Your task to perform on an android device: install app "Pluto TV - Live TV and Movies" Image 0: 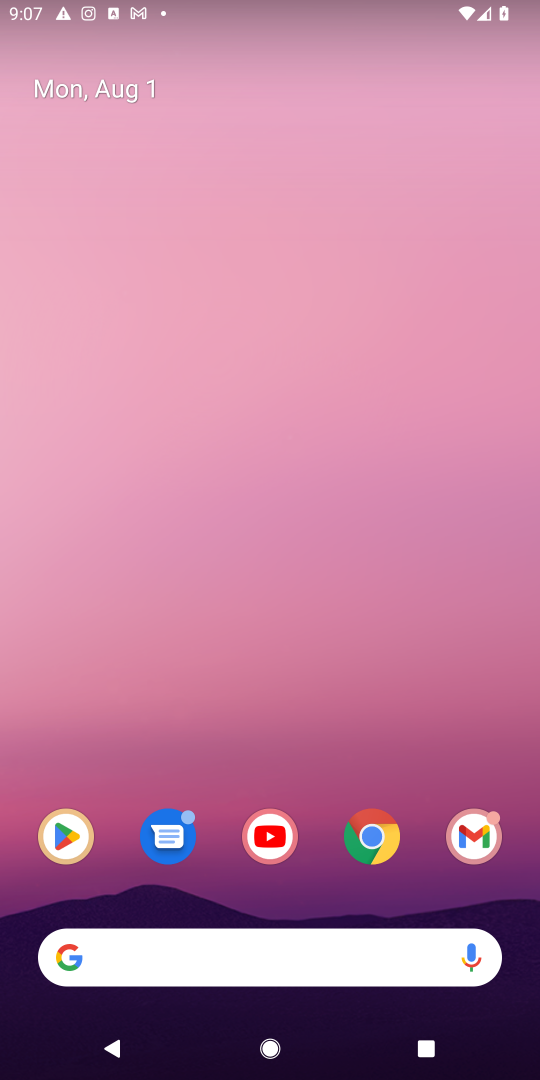
Step 0: press home button
Your task to perform on an android device: install app "Pluto TV - Live TV and Movies" Image 1: 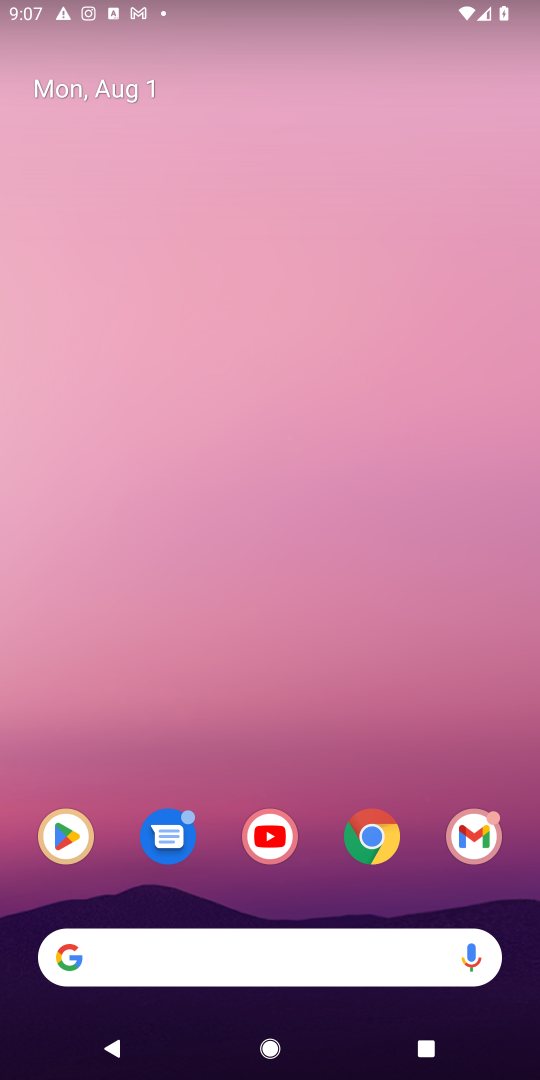
Step 1: click (64, 846)
Your task to perform on an android device: install app "Pluto TV - Live TV and Movies" Image 2: 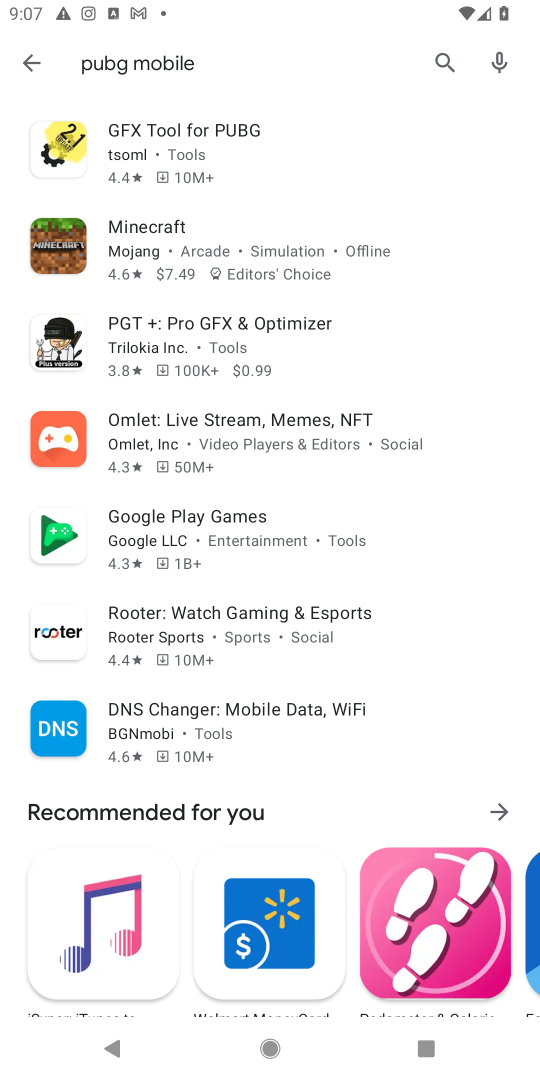
Step 2: click (439, 58)
Your task to perform on an android device: install app "Pluto TV - Live TV and Movies" Image 3: 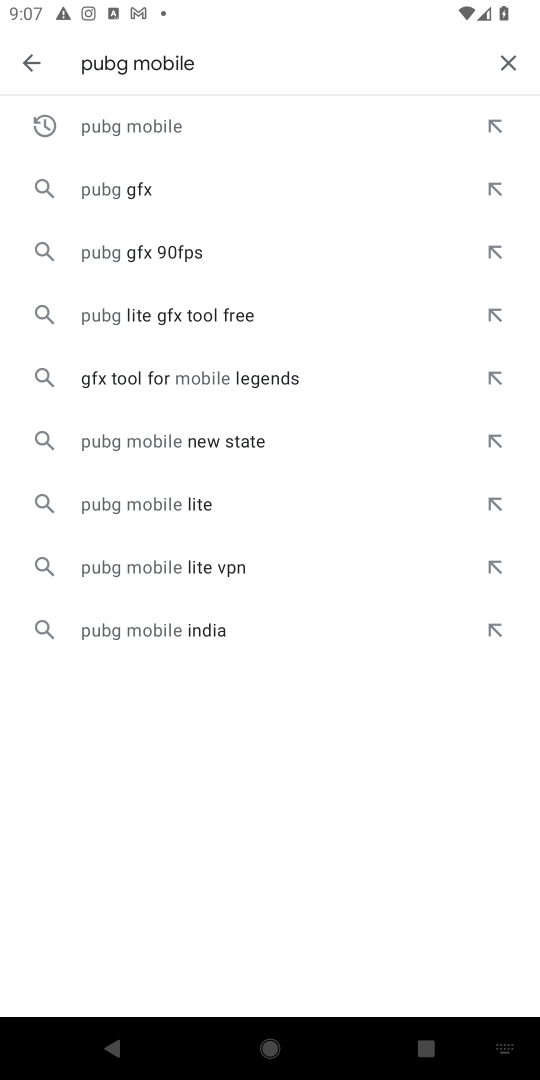
Step 3: click (508, 56)
Your task to perform on an android device: install app "Pluto TV - Live TV and Movies" Image 4: 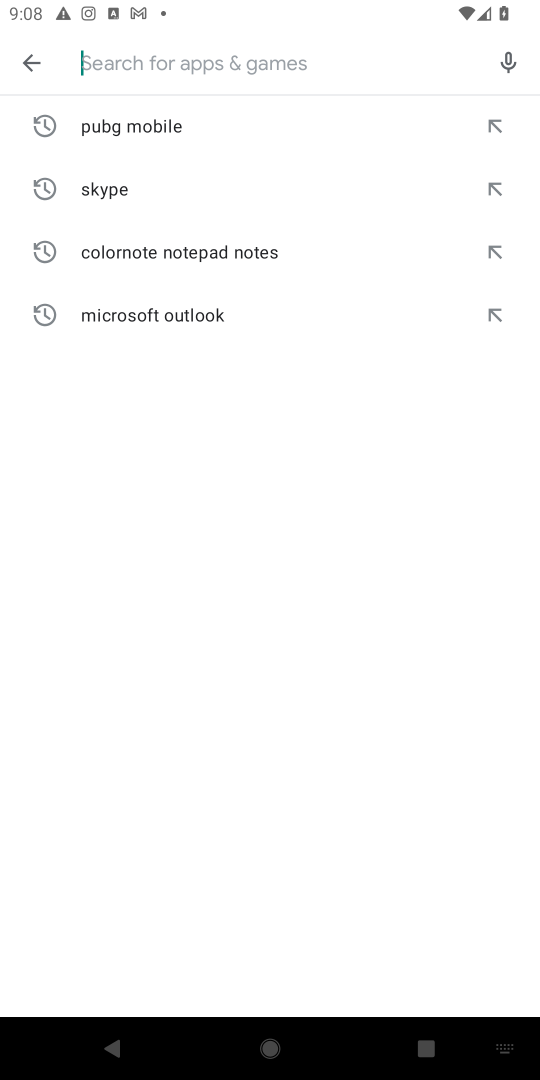
Step 4: type "Pluto TV - Live TV and Movies"
Your task to perform on an android device: install app "Pluto TV - Live TV and Movies" Image 5: 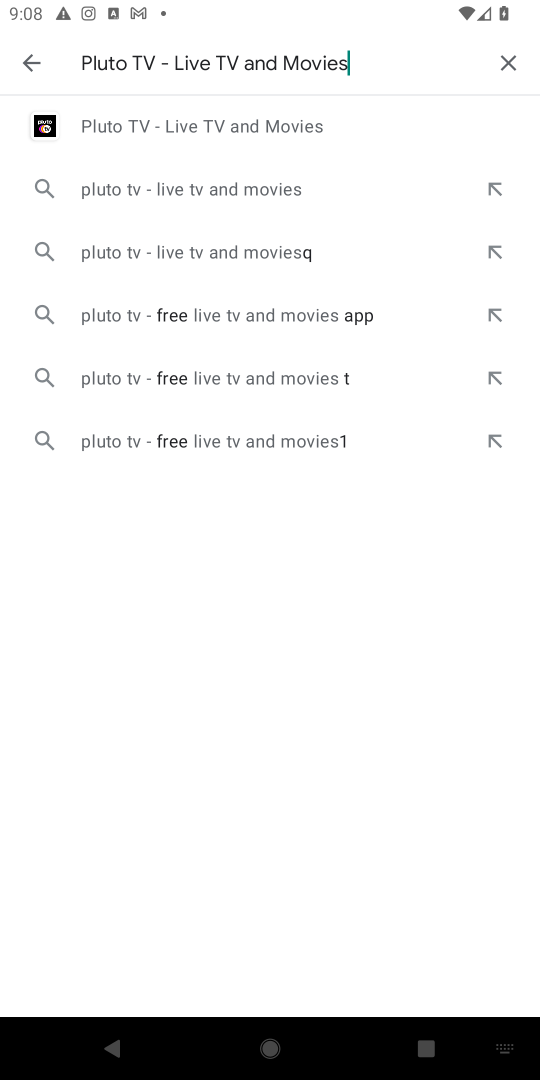
Step 5: click (222, 136)
Your task to perform on an android device: install app "Pluto TV - Live TV and Movies" Image 6: 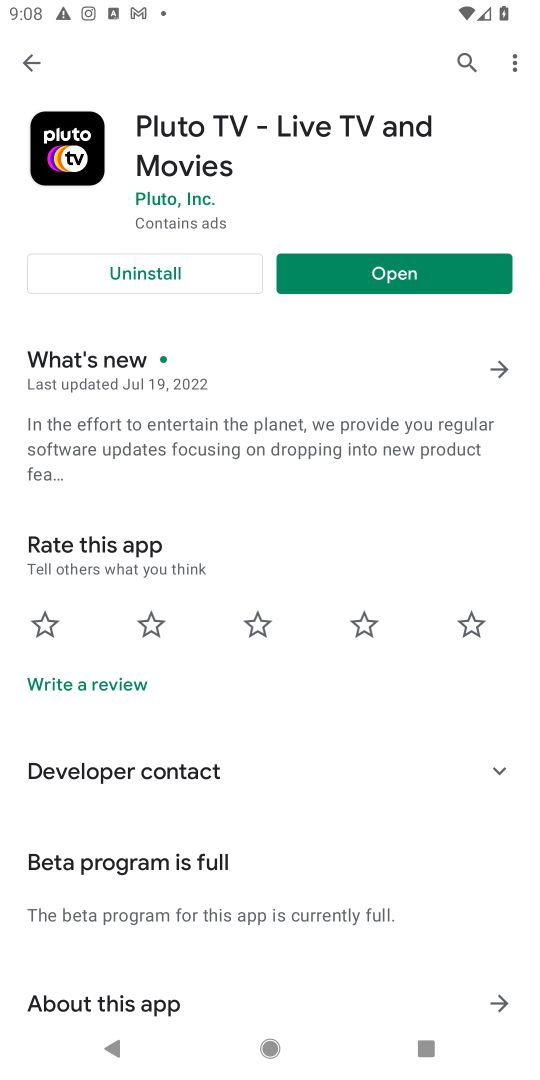
Step 6: task complete